Your task to perform on an android device: Open Google Chrome and click the shortcut for Amazon.com Image 0: 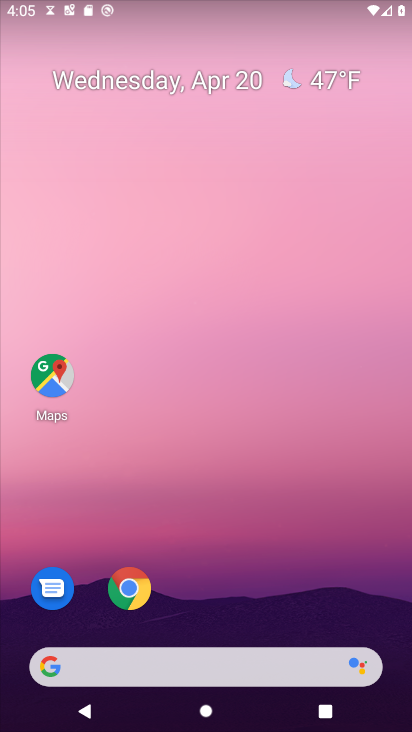
Step 0: click (130, 589)
Your task to perform on an android device: Open Google Chrome and click the shortcut for Amazon.com Image 1: 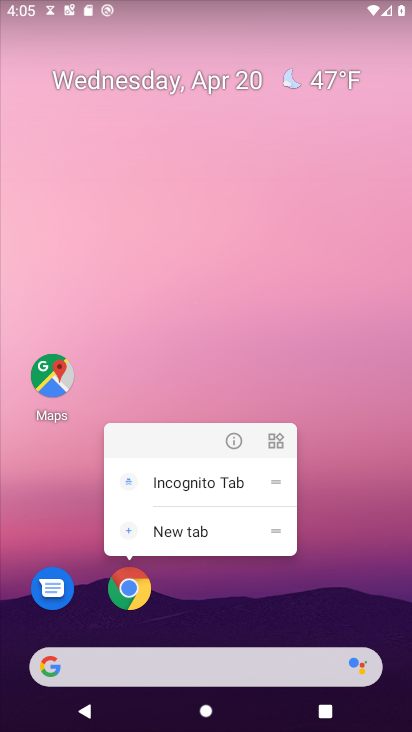
Step 1: click (129, 580)
Your task to perform on an android device: Open Google Chrome and click the shortcut for Amazon.com Image 2: 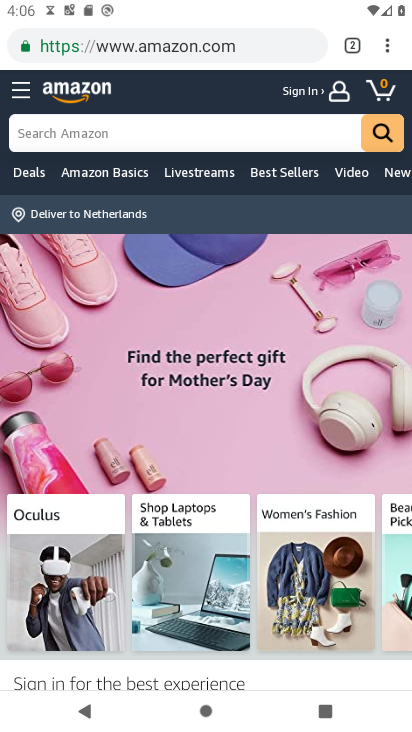
Step 2: click (386, 47)
Your task to perform on an android device: Open Google Chrome and click the shortcut for Amazon.com Image 3: 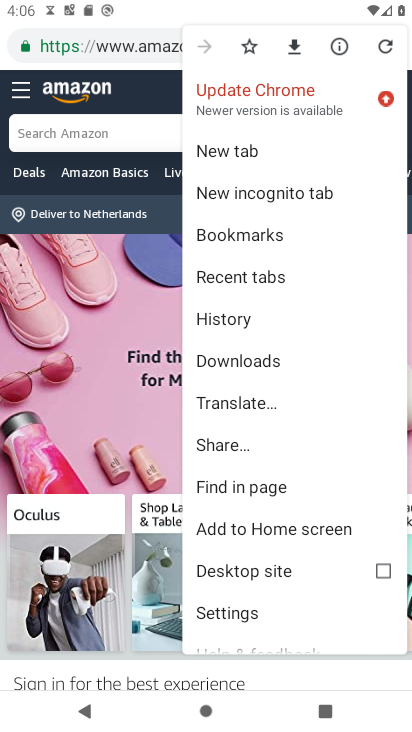
Step 3: click (259, 147)
Your task to perform on an android device: Open Google Chrome and click the shortcut for Amazon.com Image 4: 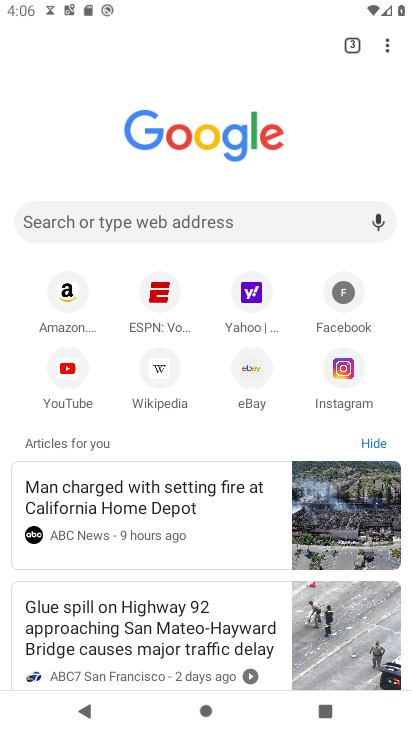
Step 4: click (53, 297)
Your task to perform on an android device: Open Google Chrome and click the shortcut for Amazon.com Image 5: 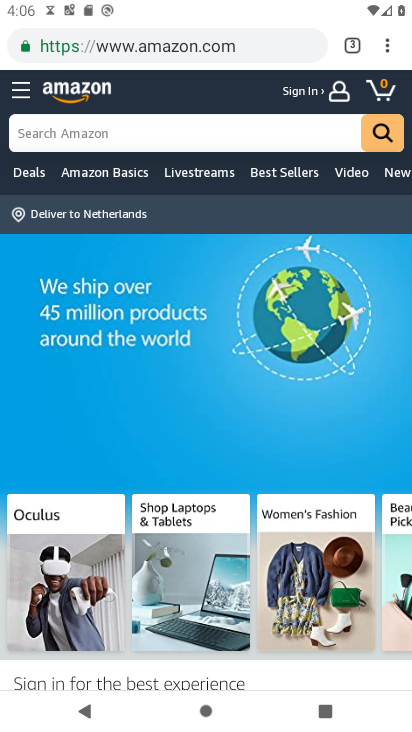
Step 5: task complete